Your task to perform on an android device: toggle data saver in the chrome app Image 0: 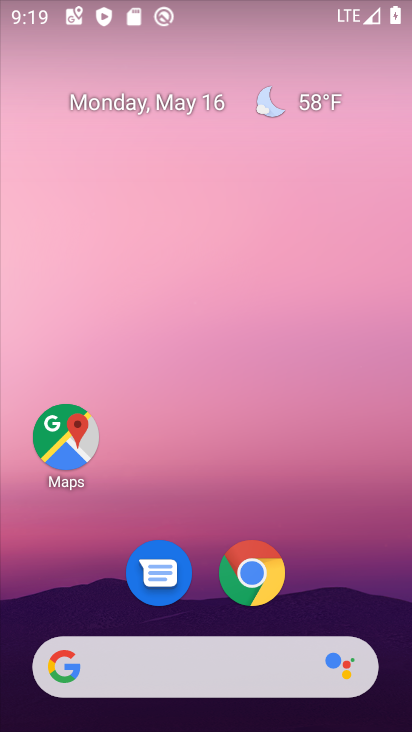
Step 0: click (245, 575)
Your task to perform on an android device: toggle data saver in the chrome app Image 1: 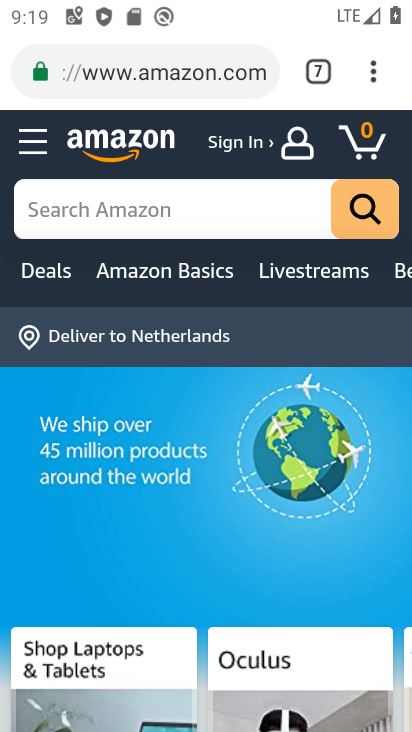
Step 1: click (374, 79)
Your task to perform on an android device: toggle data saver in the chrome app Image 2: 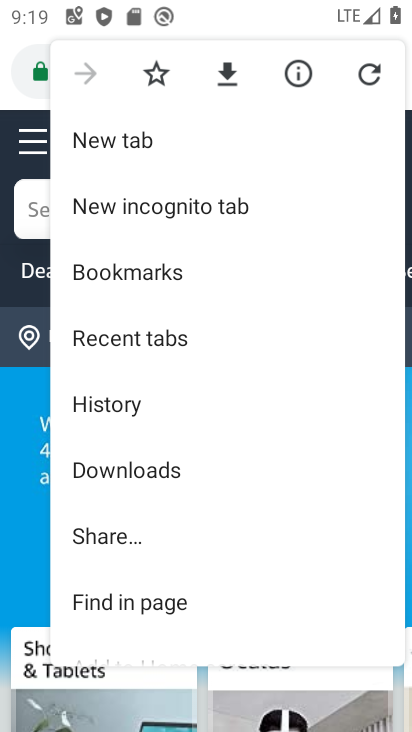
Step 2: drag from (152, 594) to (134, 101)
Your task to perform on an android device: toggle data saver in the chrome app Image 3: 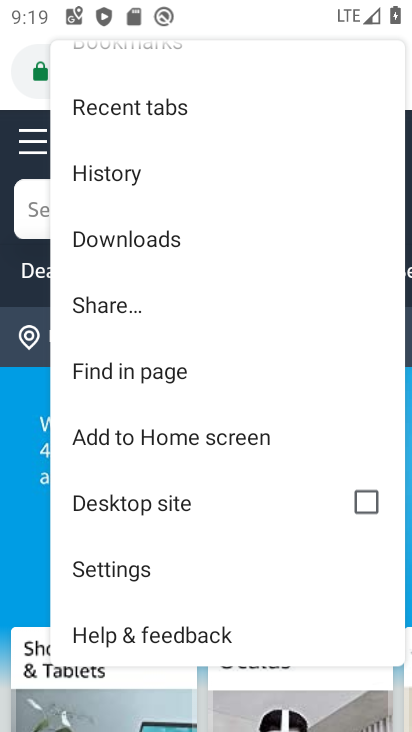
Step 3: click (124, 569)
Your task to perform on an android device: toggle data saver in the chrome app Image 4: 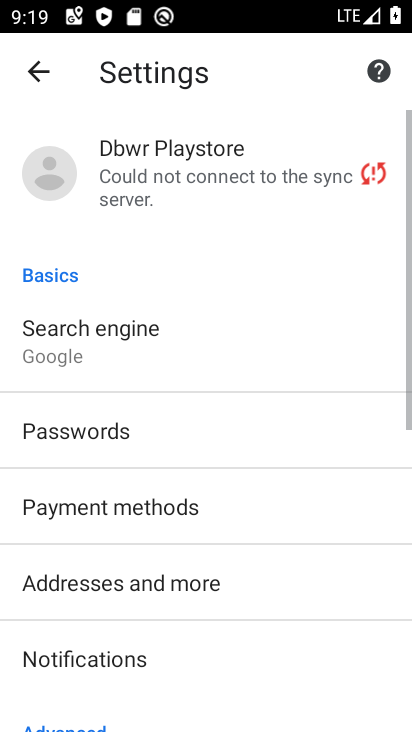
Step 4: drag from (152, 660) to (138, 247)
Your task to perform on an android device: toggle data saver in the chrome app Image 5: 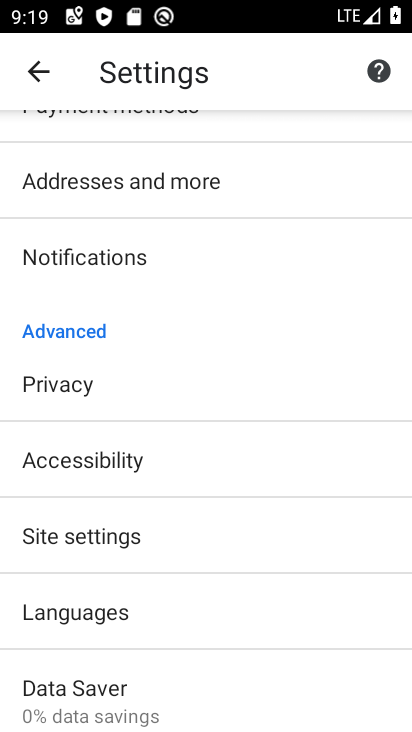
Step 5: drag from (116, 662) to (115, 339)
Your task to perform on an android device: toggle data saver in the chrome app Image 6: 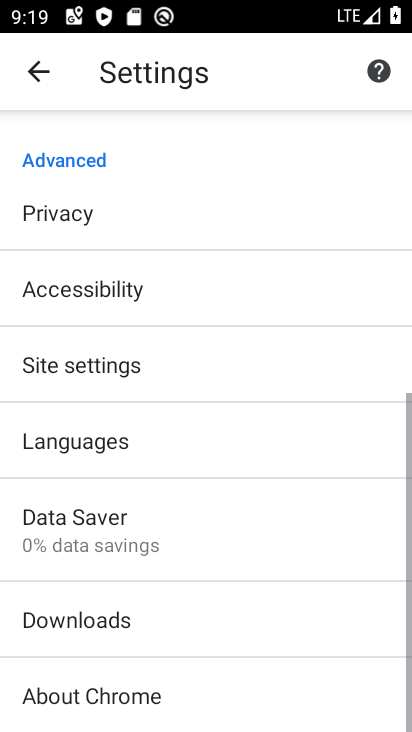
Step 6: click (72, 525)
Your task to perform on an android device: toggle data saver in the chrome app Image 7: 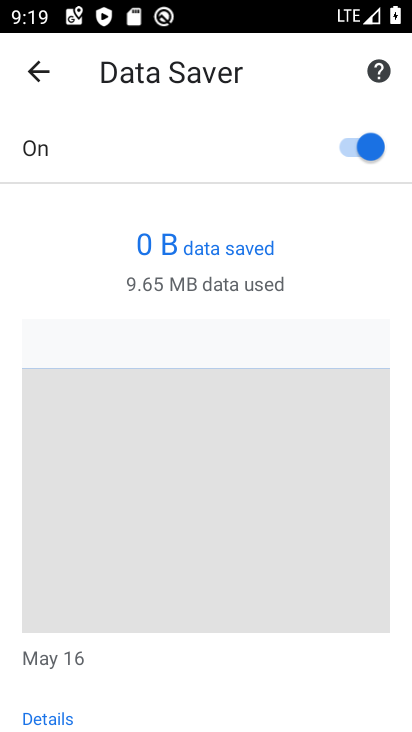
Step 7: click (353, 145)
Your task to perform on an android device: toggle data saver in the chrome app Image 8: 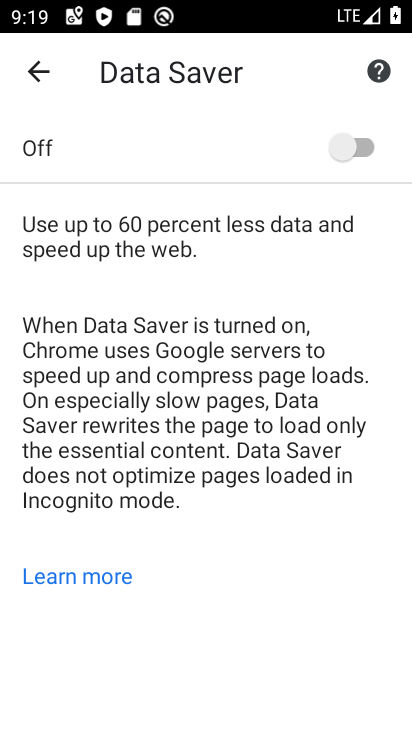
Step 8: task complete